Your task to perform on an android device: What's on my calendar today? Image 0: 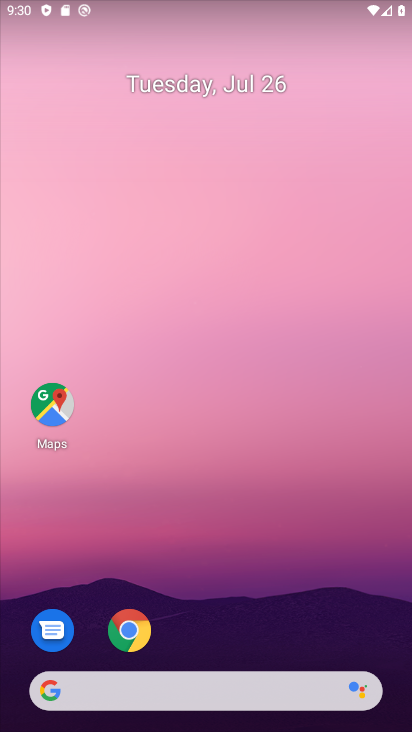
Step 0: drag from (395, 629) to (359, 183)
Your task to perform on an android device: What's on my calendar today? Image 1: 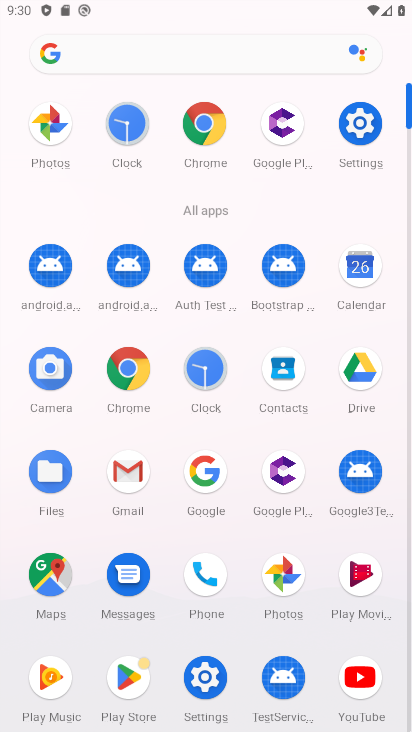
Step 1: click (364, 271)
Your task to perform on an android device: What's on my calendar today? Image 2: 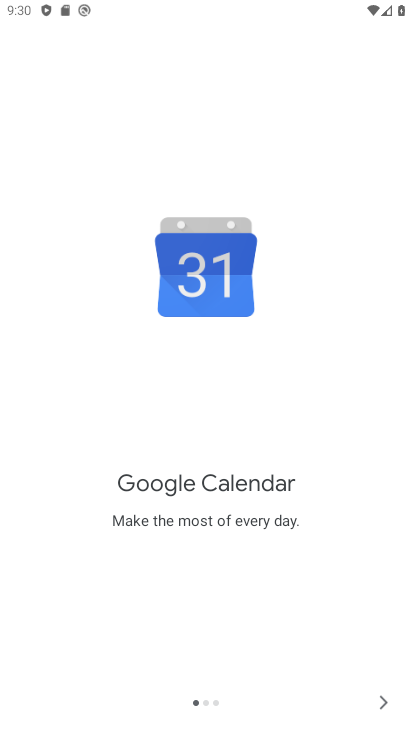
Step 2: click (381, 706)
Your task to perform on an android device: What's on my calendar today? Image 3: 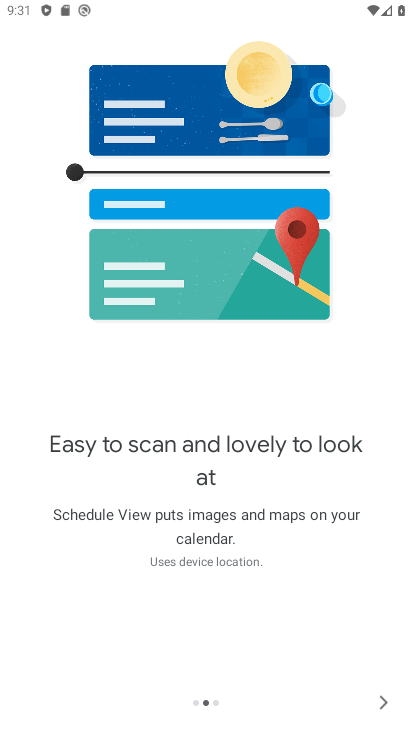
Step 3: click (381, 702)
Your task to perform on an android device: What's on my calendar today? Image 4: 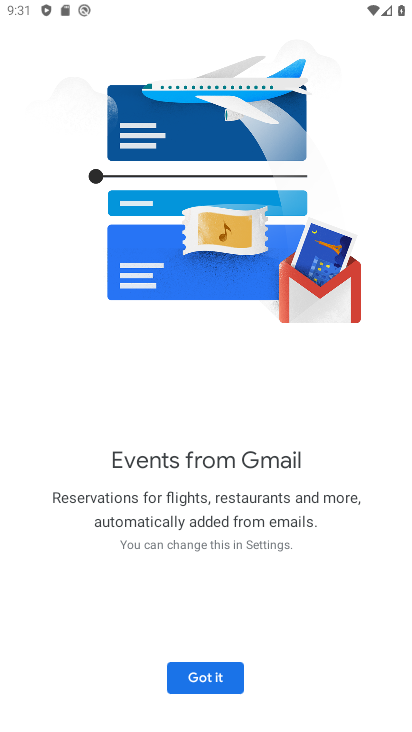
Step 4: click (198, 674)
Your task to perform on an android device: What's on my calendar today? Image 5: 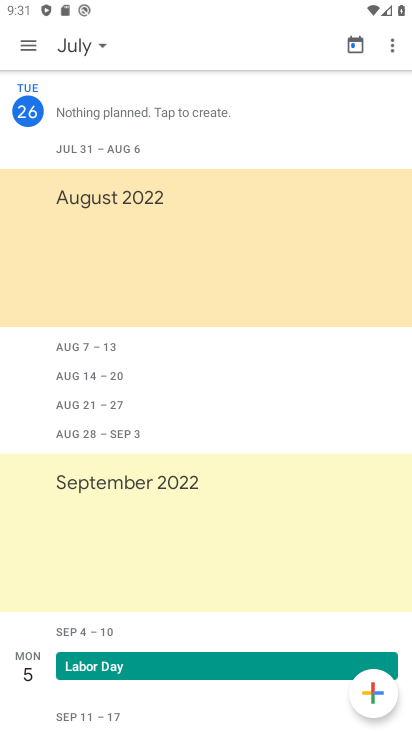
Step 5: click (23, 46)
Your task to perform on an android device: What's on my calendar today? Image 6: 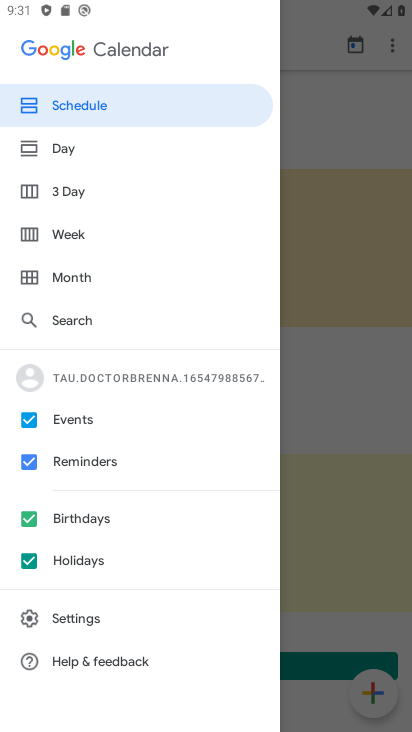
Step 6: click (63, 147)
Your task to perform on an android device: What's on my calendar today? Image 7: 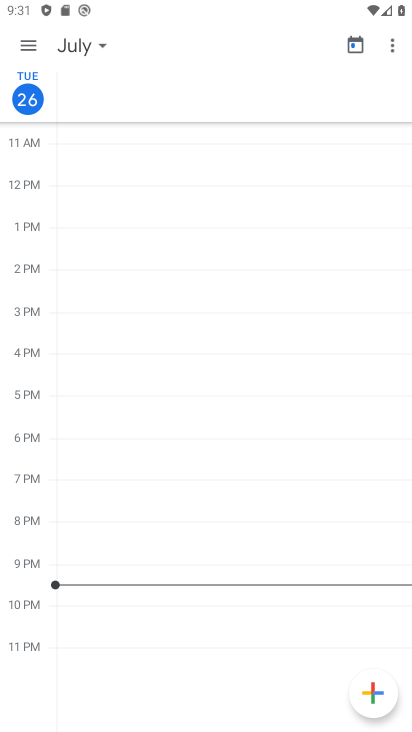
Step 7: task complete